Your task to perform on an android device: toggle priority inbox in the gmail app Image 0: 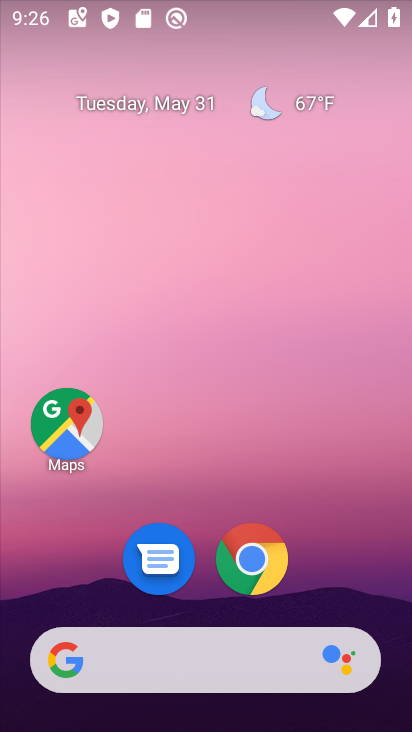
Step 0: drag from (318, 569) to (294, 137)
Your task to perform on an android device: toggle priority inbox in the gmail app Image 1: 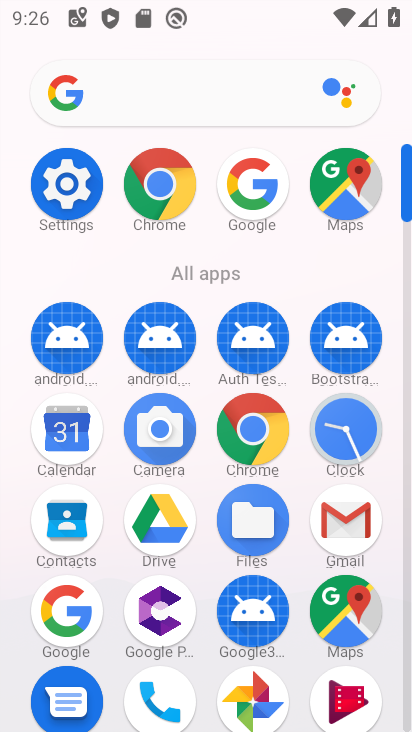
Step 1: click (334, 526)
Your task to perform on an android device: toggle priority inbox in the gmail app Image 2: 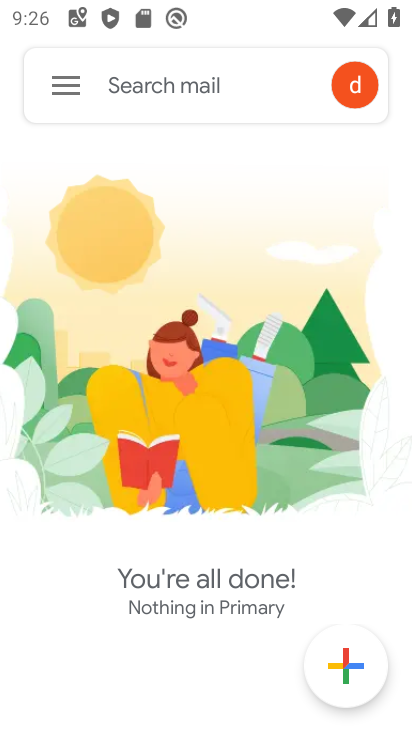
Step 2: click (59, 90)
Your task to perform on an android device: toggle priority inbox in the gmail app Image 3: 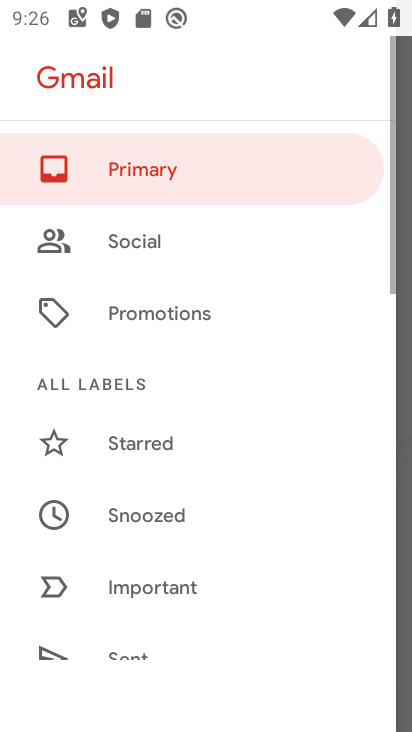
Step 3: drag from (155, 606) to (153, 214)
Your task to perform on an android device: toggle priority inbox in the gmail app Image 4: 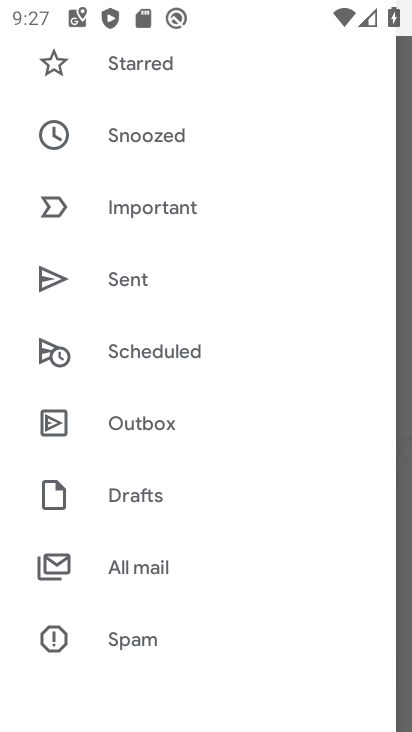
Step 4: drag from (177, 612) to (197, 195)
Your task to perform on an android device: toggle priority inbox in the gmail app Image 5: 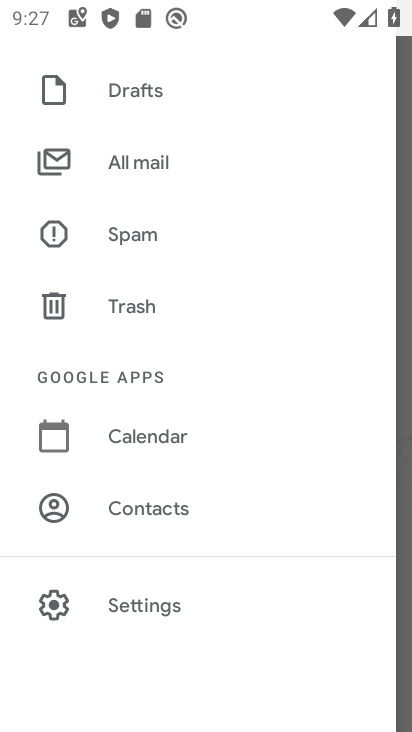
Step 5: click (109, 605)
Your task to perform on an android device: toggle priority inbox in the gmail app Image 6: 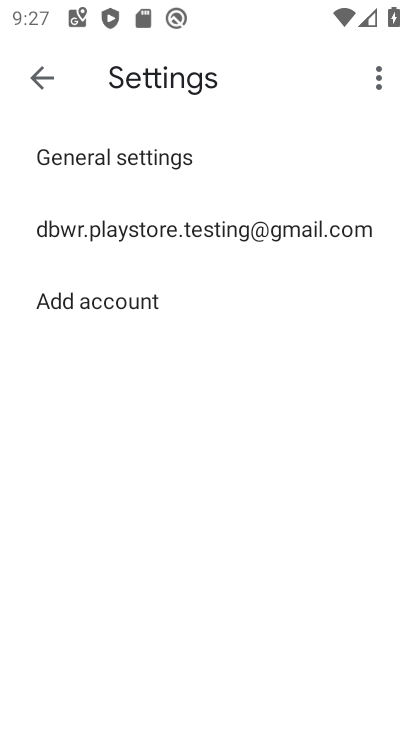
Step 6: click (97, 230)
Your task to perform on an android device: toggle priority inbox in the gmail app Image 7: 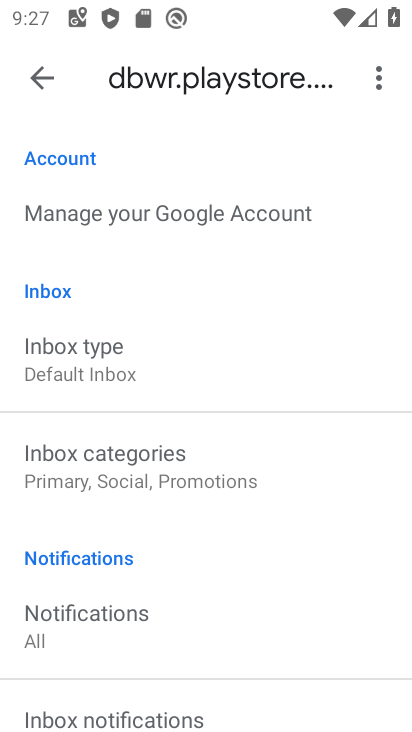
Step 7: click (110, 379)
Your task to perform on an android device: toggle priority inbox in the gmail app Image 8: 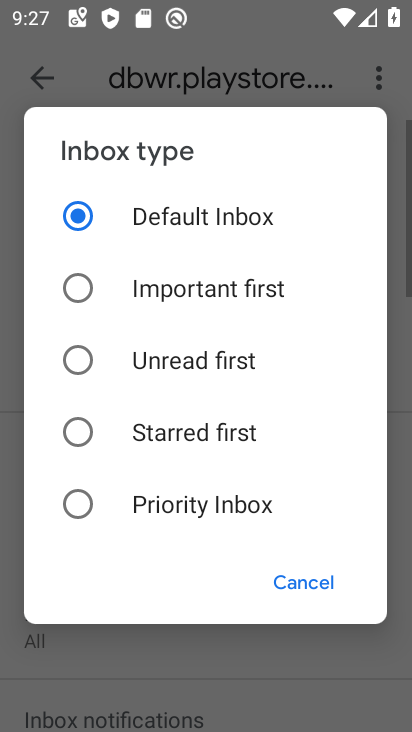
Step 8: click (75, 491)
Your task to perform on an android device: toggle priority inbox in the gmail app Image 9: 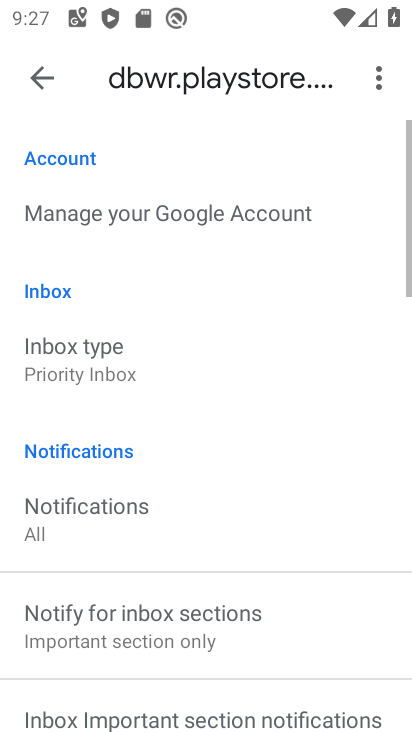
Step 9: task complete